Your task to perform on an android device: Is it going to rain today? Image 0: 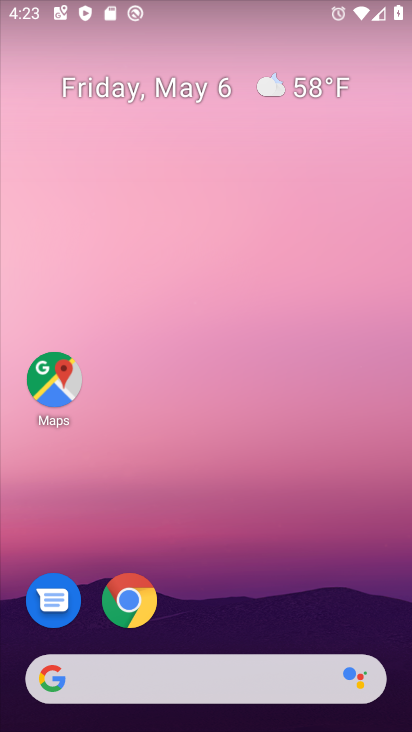
Step 0: click (303, 89)
Your task to perform on an android device: Is it going to rain today? Image 1: 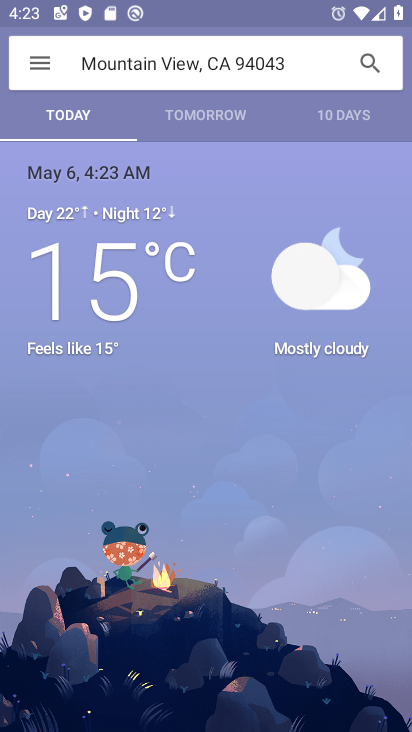
Step 1: task complete